Your task to perform on an android device: move an email to a new category in the gmail app Image 0: 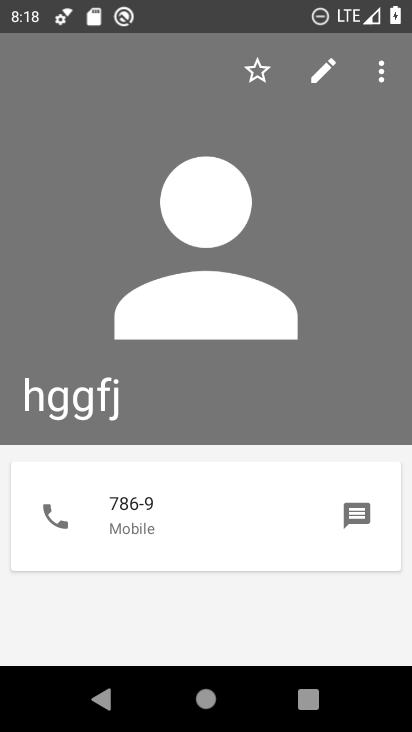
Step 0: press home button
Your task to perform on an android device: move an email to a new category in the gmail app Image 1: 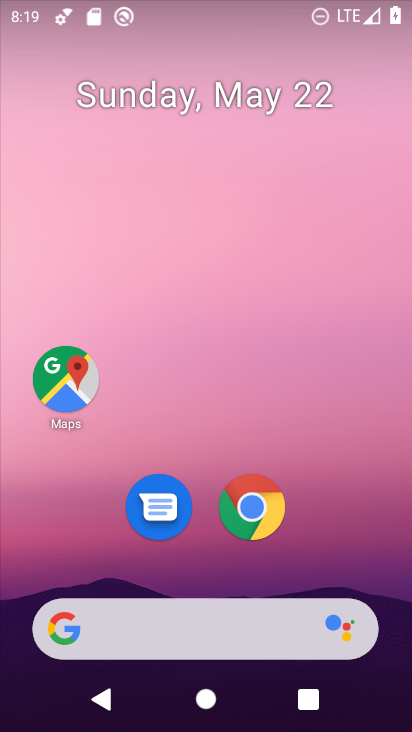
Step 1: drag from (231, 536) to (228, 6)
Your task to perform on an android device: move an email to a new category in the gmail app Image 2: 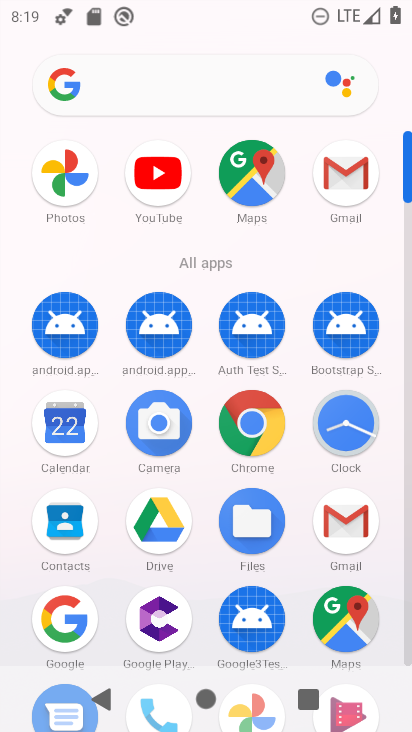
Step 2: click (357, 186)
Your task to perform on an android device: move an email to a new category in the gmail app Image 3: 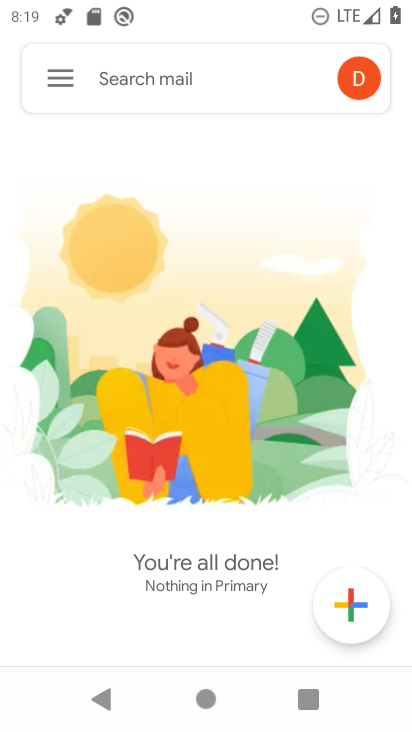
Step 3: task complete